Your task to perform on an android device: Open Chrome and go to settings Image 0: 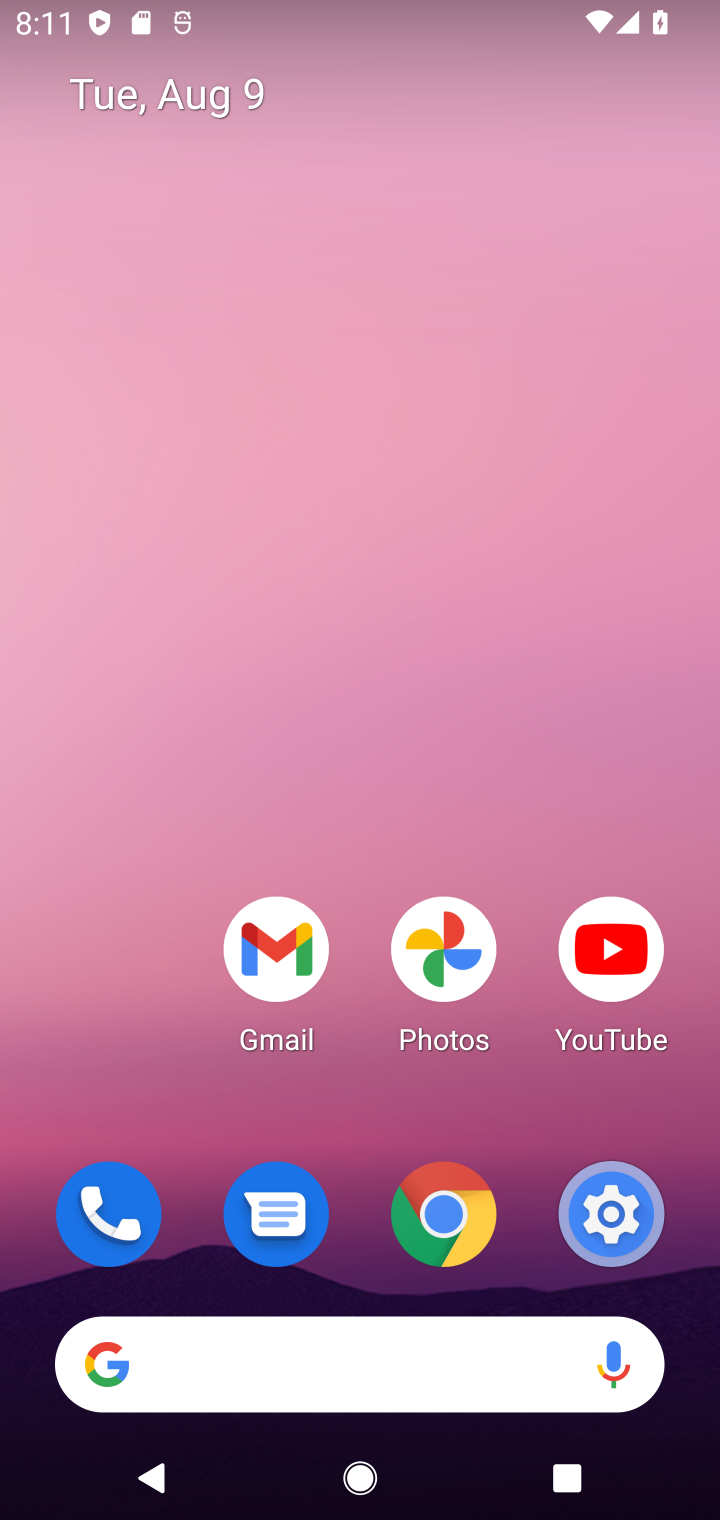
Step 0: click (443, 1205)
Your task to perform on an android device: Open Chrome and go to settings Image 1: 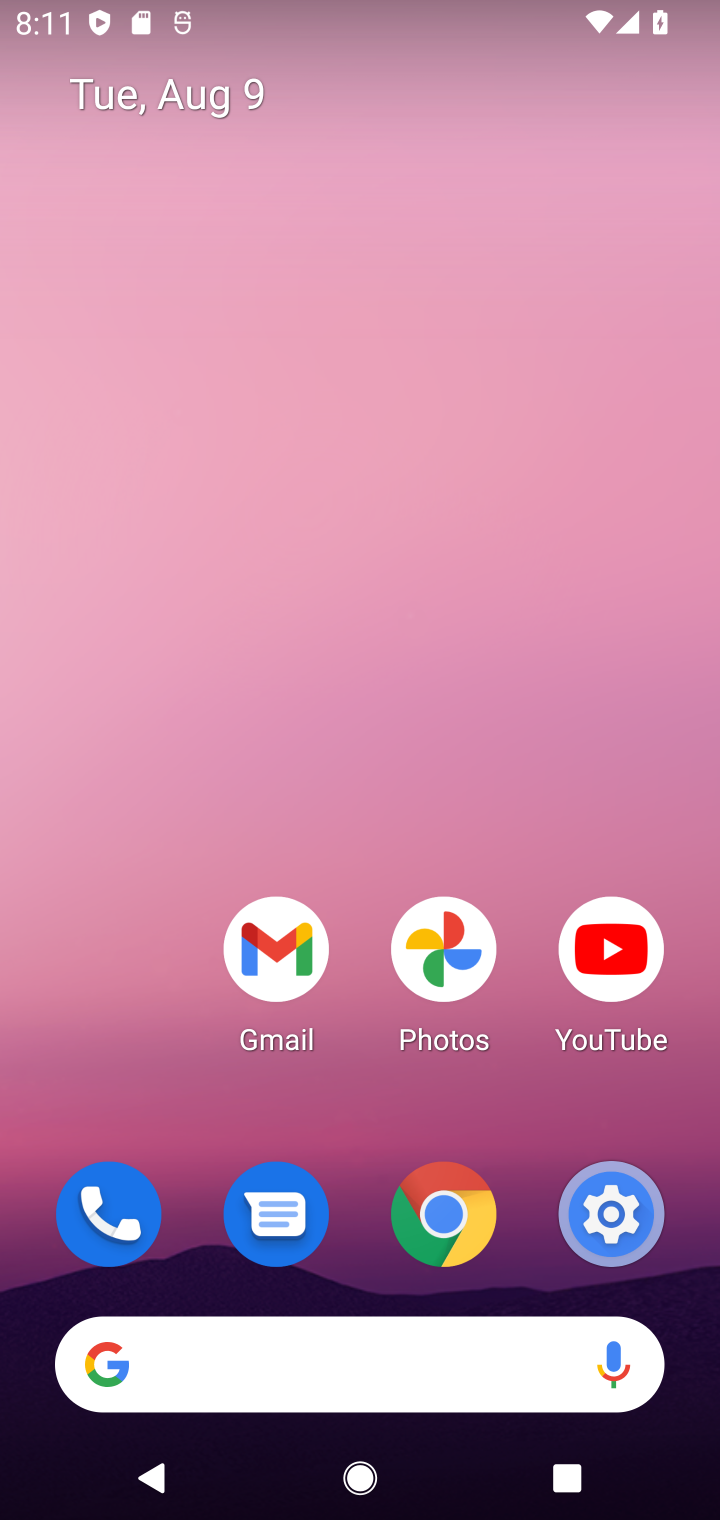
Step 1: click (443, 1205)
Your task to perform on an android device: Open Chrome and go to settings Image 2: 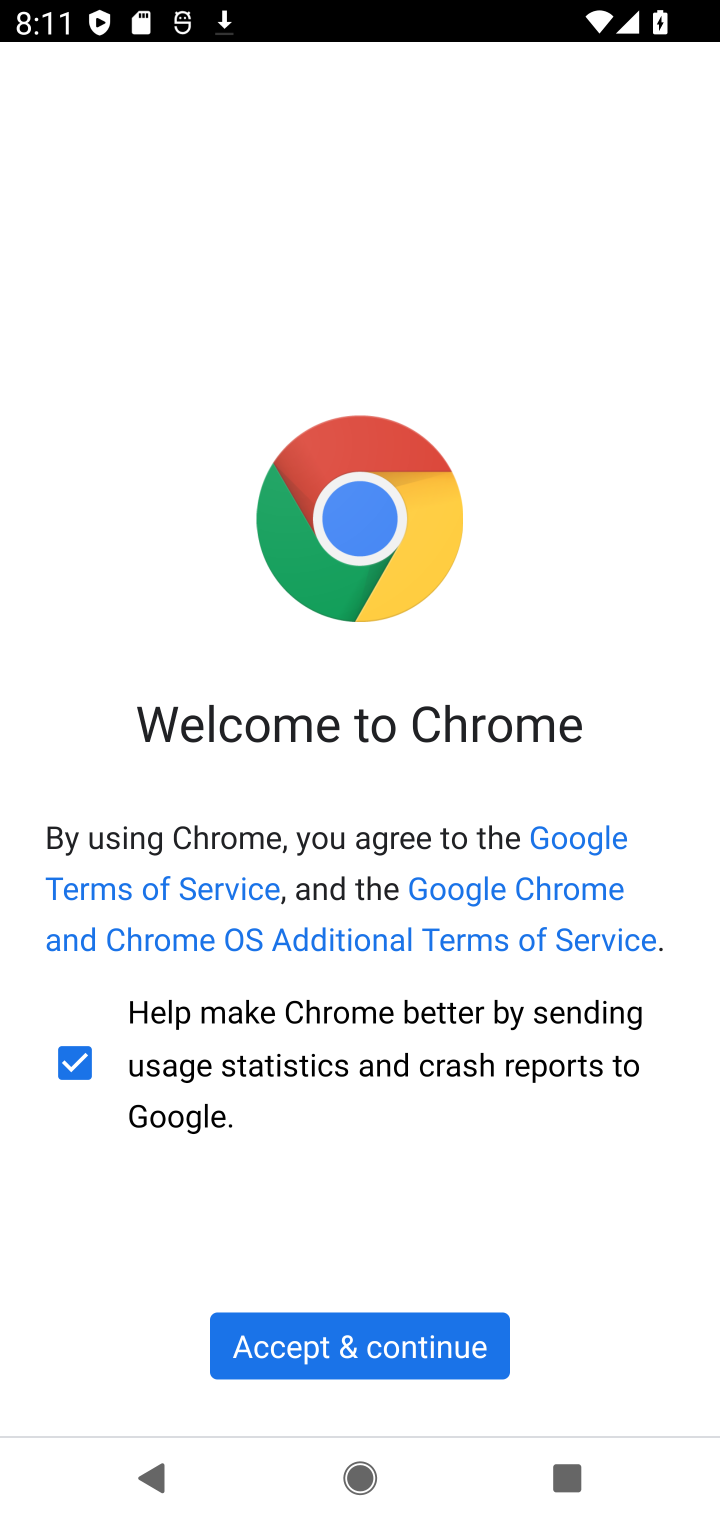
Step 2: click (391, 1341)
Your task to perform on an android device: Open Chrome and go to settings Image 3: 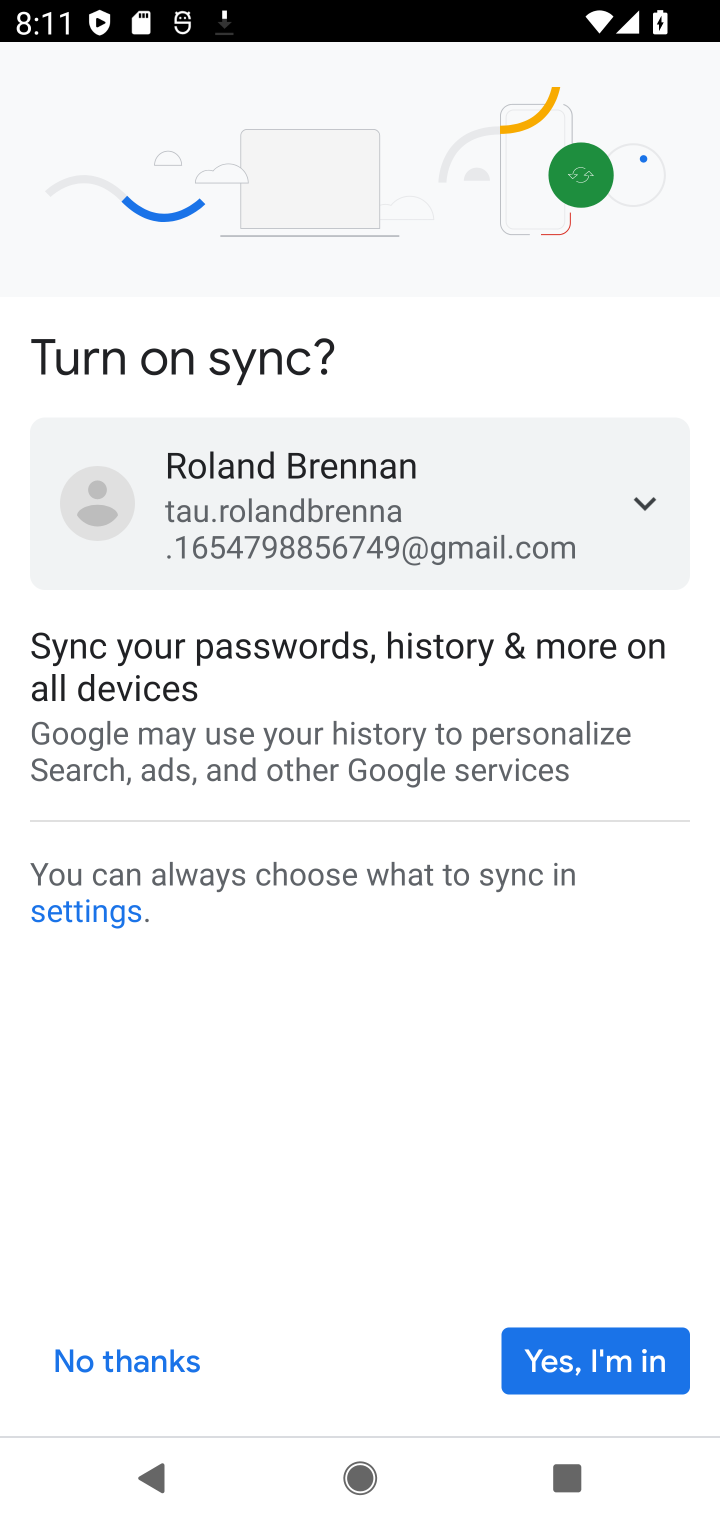
Step 3: click (152, 1345)
Your task to perform on an android device: Open Chrome and go to settings Image 4: 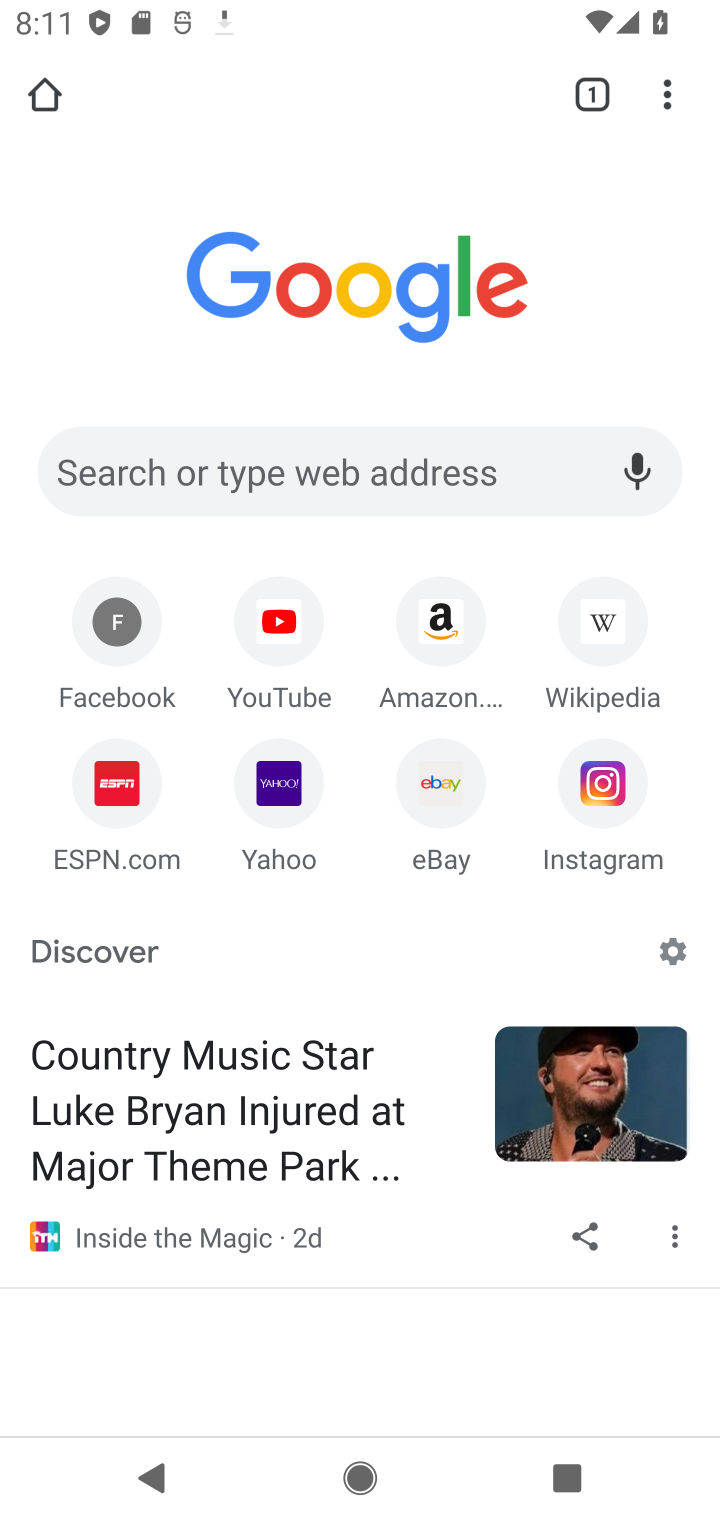
Step 4: click (666, 90)
Your task to perform on an android device: Open Chrome and go to settings Image 5: 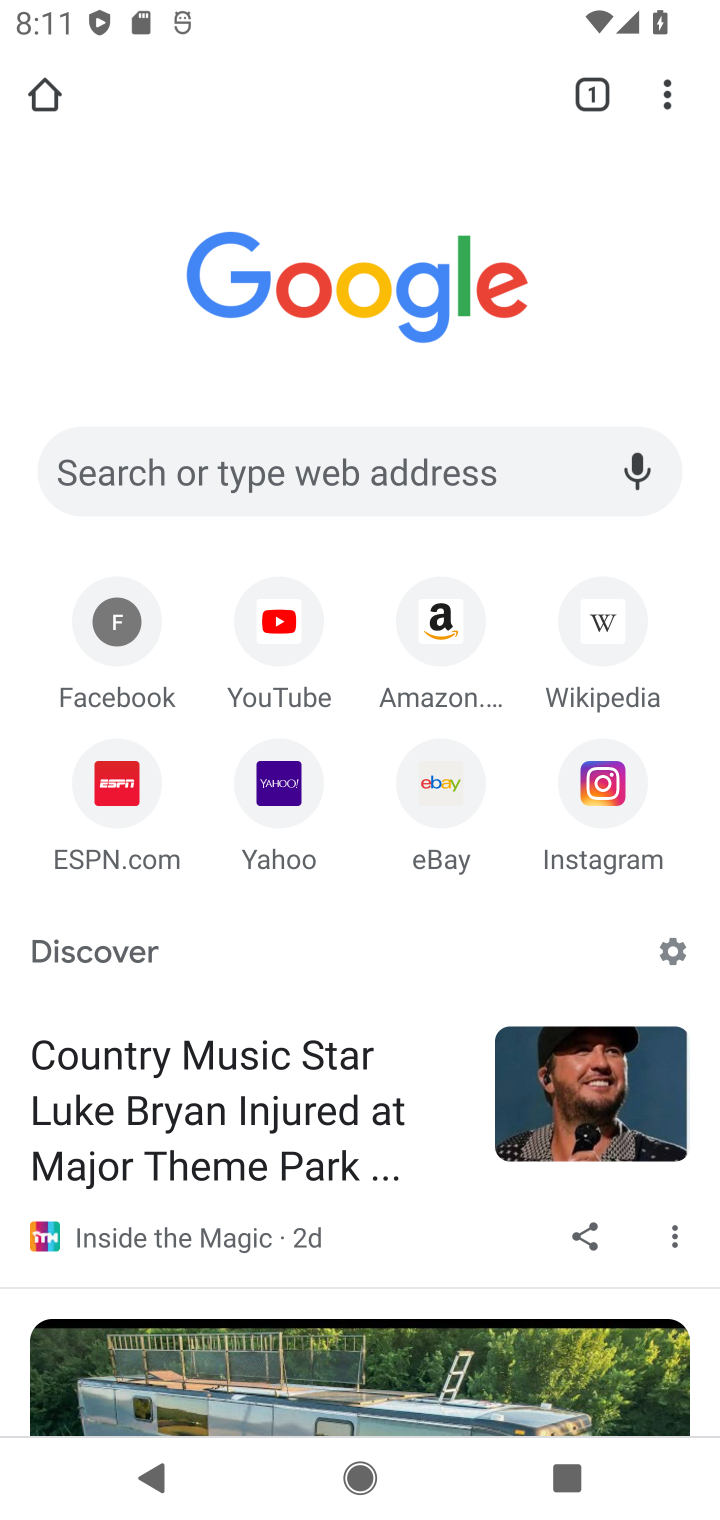
Step 5: click (676, 70)
Your task to perform on an android device: Open Chrome and go to settings Image 6: 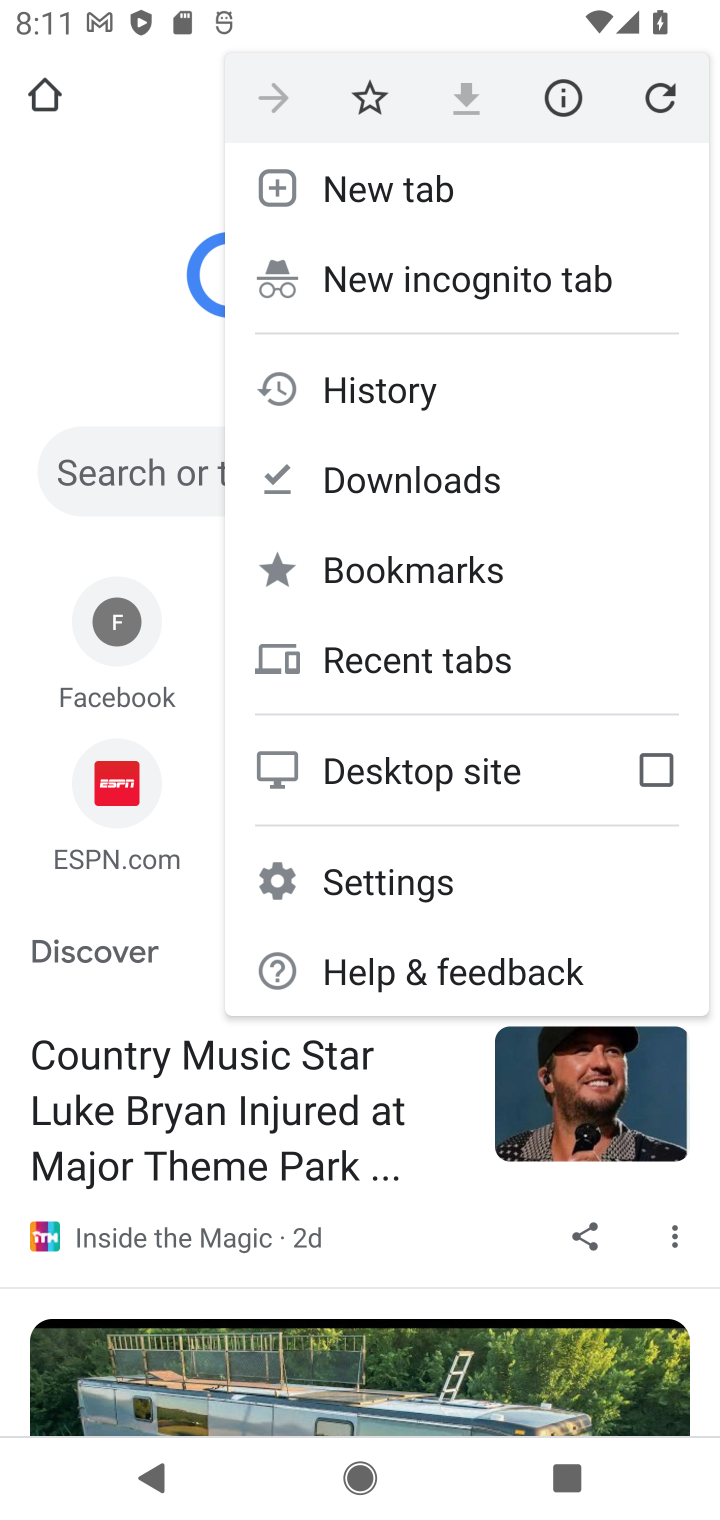
Step 6: click (363, 884)
Your task to perform on an android device: Open Chrome and go to settings Image 7: 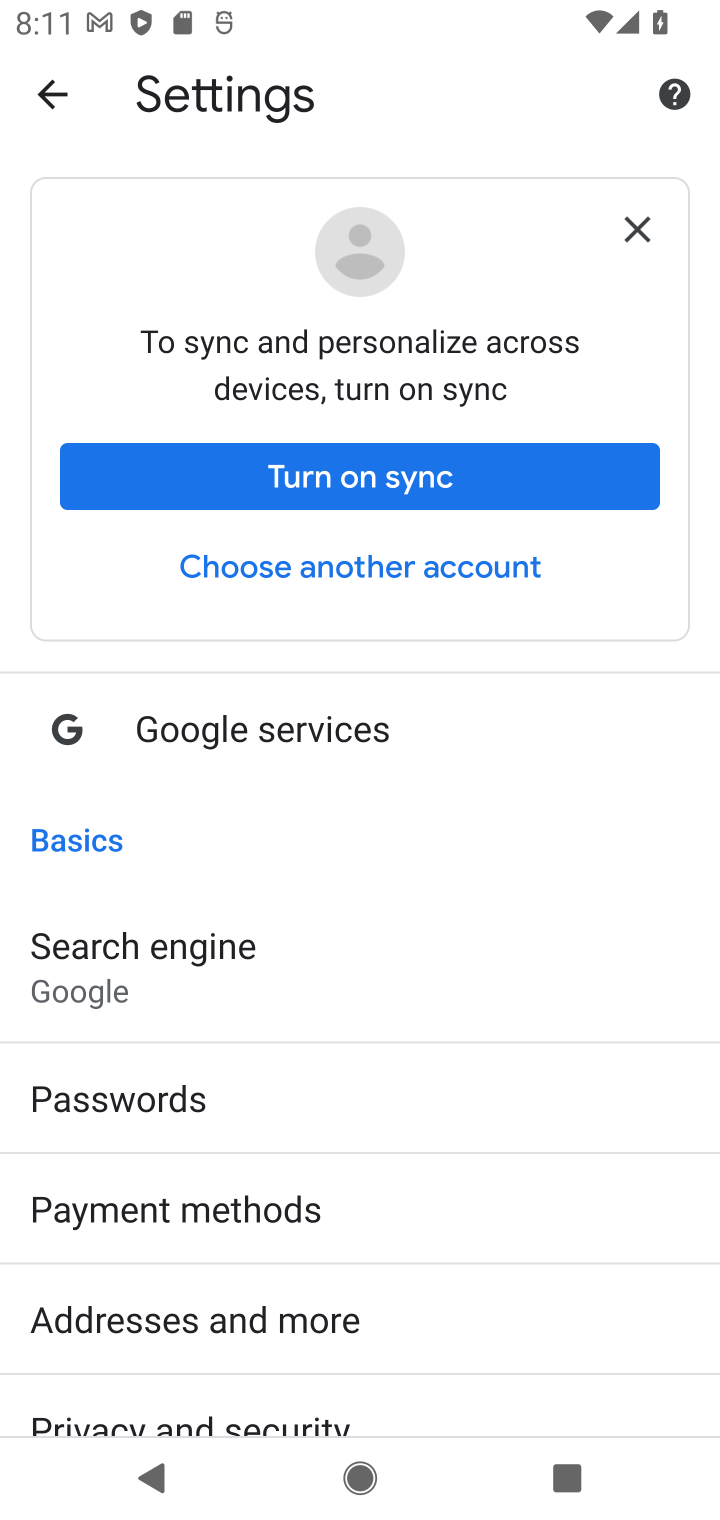
Step 7: task complete